Your task to perform on an android device: turn on the 24-hour format for clock Image 0: 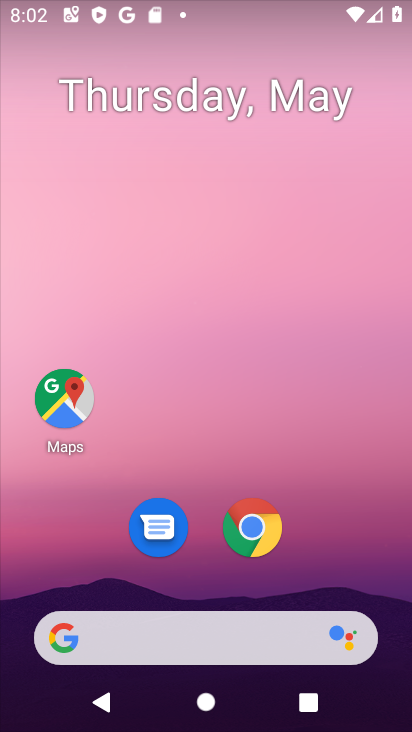
Step 0: drag from (64, 612) to (381, 161)
Your task to perform on an android device: turn on the 24-hour format for clock Image 1: 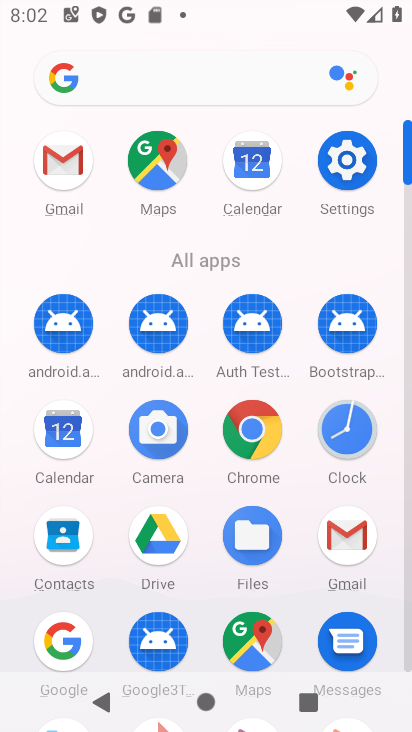
Step 1: click (349, 428)
Your task to perform on an android device: turn on the 24-hour format for clock Image 2: 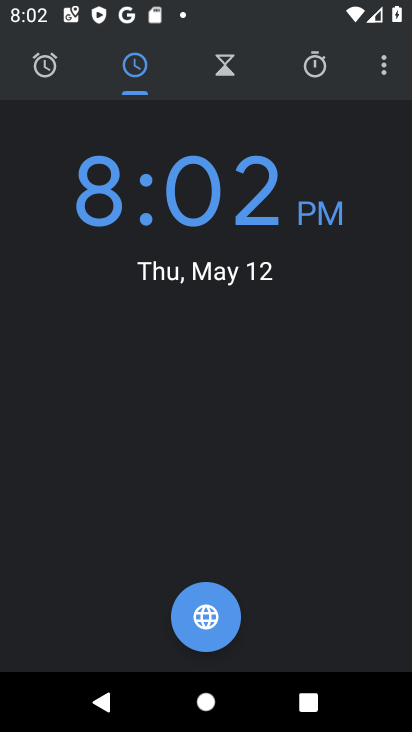
Step 2: click (382, 70)
Your task to perform on an android device: turn on the 24-hour format for clock Image 3: 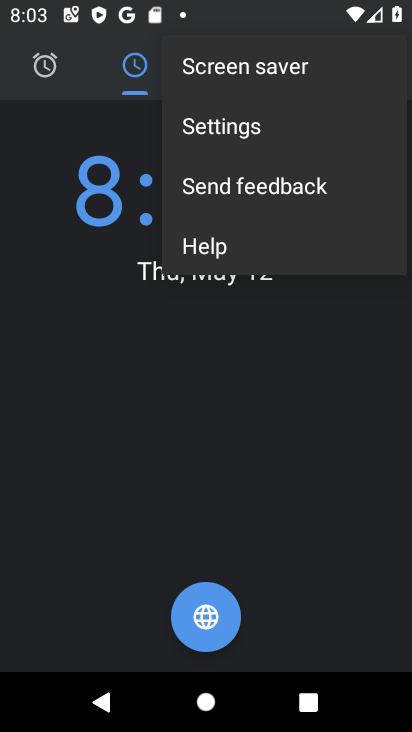
Step 3: click (260, 118)
Your task to perform on an android device: turn on the 24-hour format for clock Image 4: 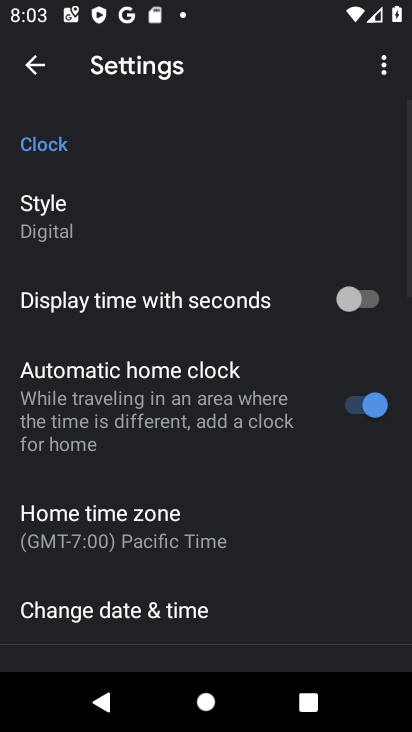
Step 4: drag from (8, 564) to (124, 269)
Your task to perform on an android device: turn on the 24-hour format for clock Image 5: 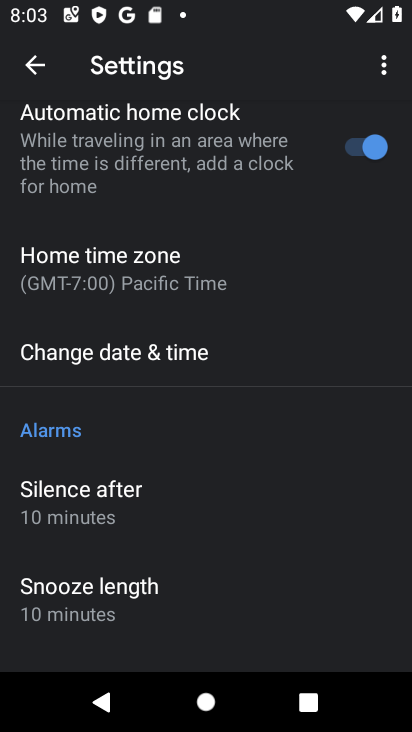
Step 5: click (87, 356)
Your task to perform on an android device: turn on the 24-hour format for clock Image 6: 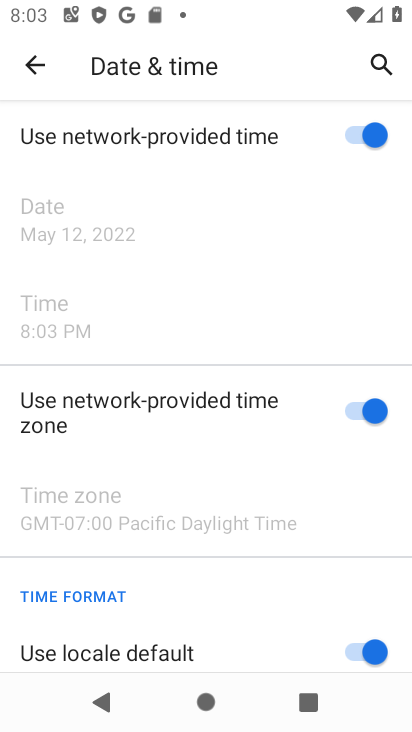
Step 6: drag from (53, 675) to (227, 95)
Your task to perform on an android device: turn on the 24-hour format for clock Image 7: 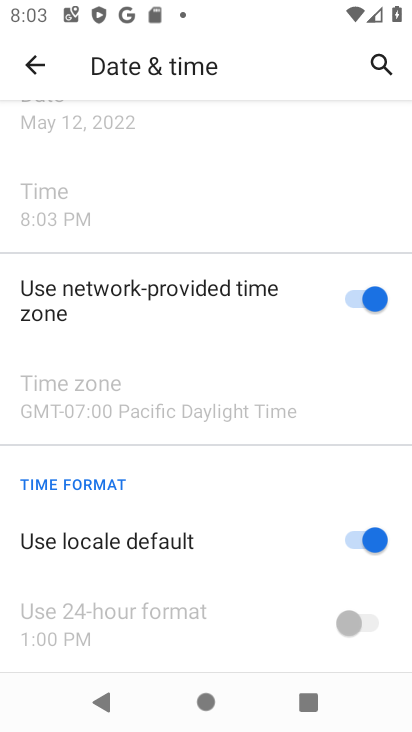
Step 7: click (378, 542)
Your task to perform on an android device: turn on the 24-hour format for clock Image 8: 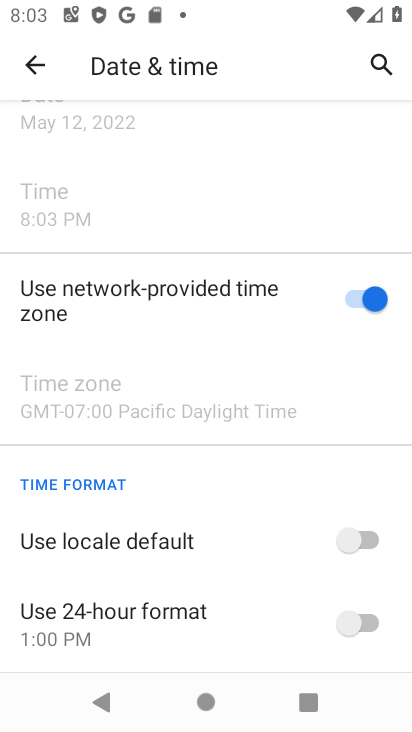
Step 8: click (347, 623)
Your task to perform on an android device: turn on the 24-hour format for clock Image 9: 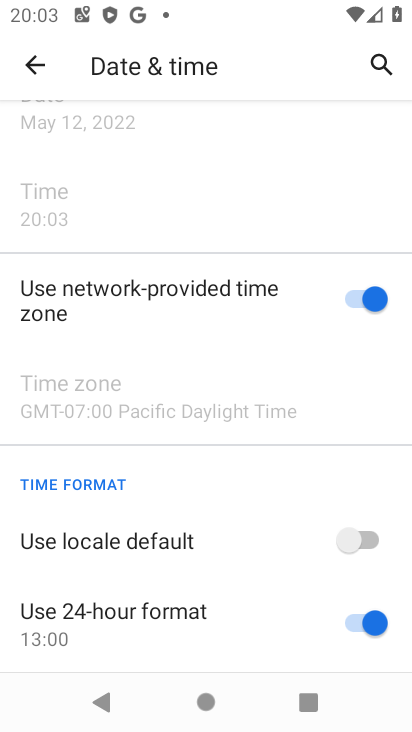
Step 9: task complete